Your task to perform on an android device: install app "Adobe Acrobat Reader" Image 0: 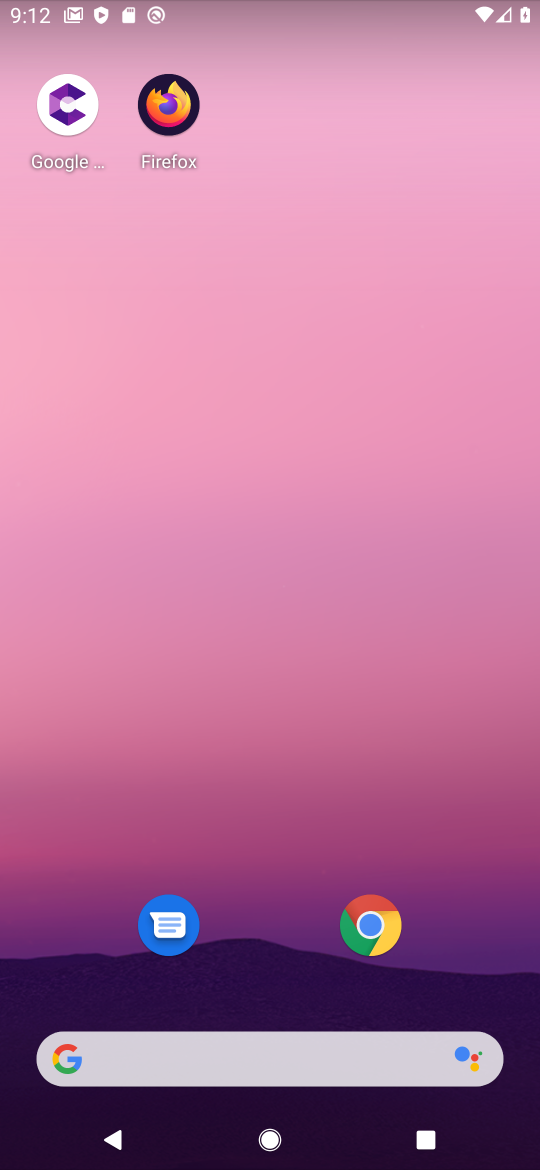
Step 0: drag from (318, 486) to (376, 83)
Your task to perform on an android device: install app "Adobe Acrobat Reader" Image 1: 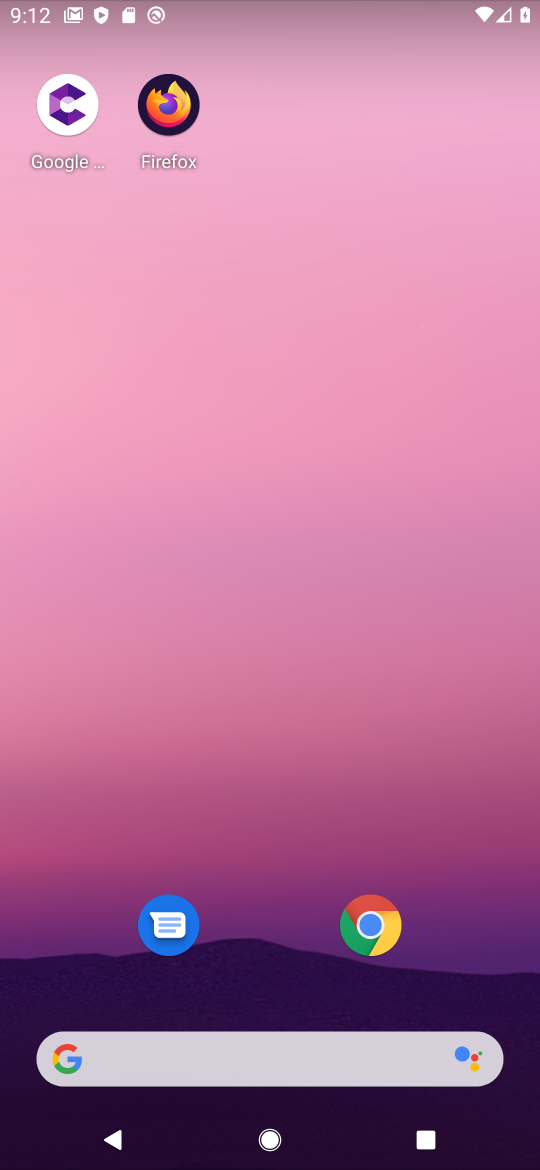
Step 1: drag from (303, 906) to (422, 37)
Your task to perform on an android device: install app "Adobe Acrobat Reader" Image 2: 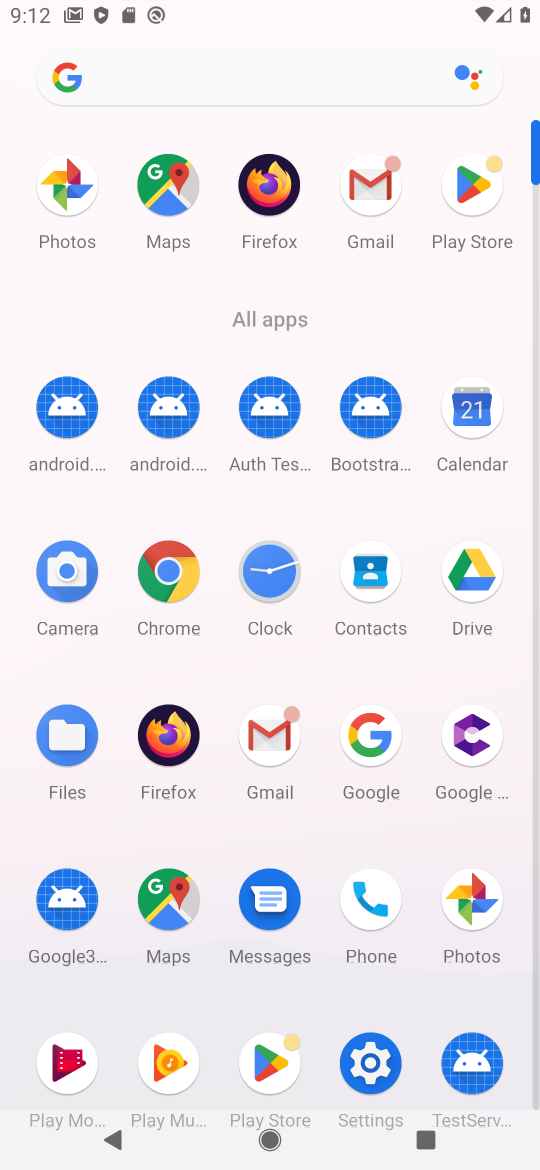
Step 2: click (460, 170)
Your task to perform on an android device: install app "Adobe Acrobat Reader" Image 3: 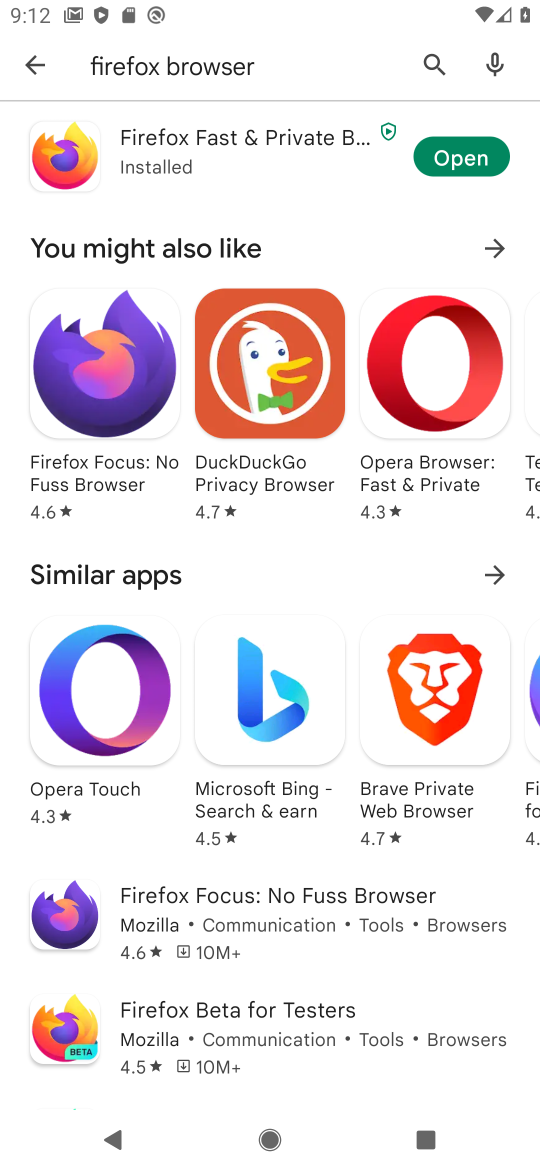
Step 3: click (444, 88)
Your task to perform on an android device: install app "Adobe Acrobat Reader" Image 4: 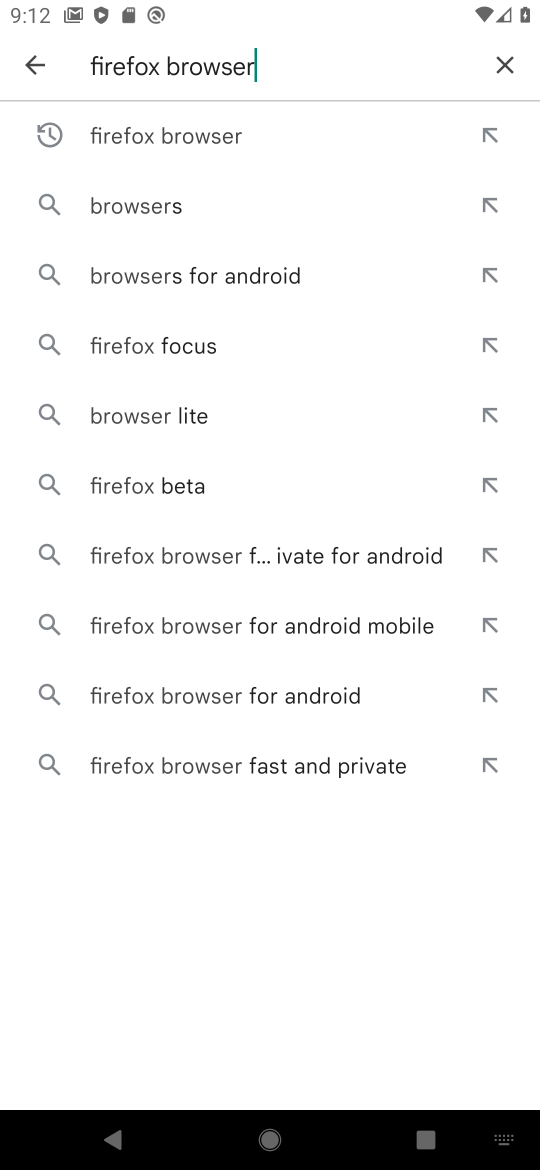
Step 4: click (503, 47)
Your task to perform on an android device: install app "Adobe Acrobat Reader" Image 5: 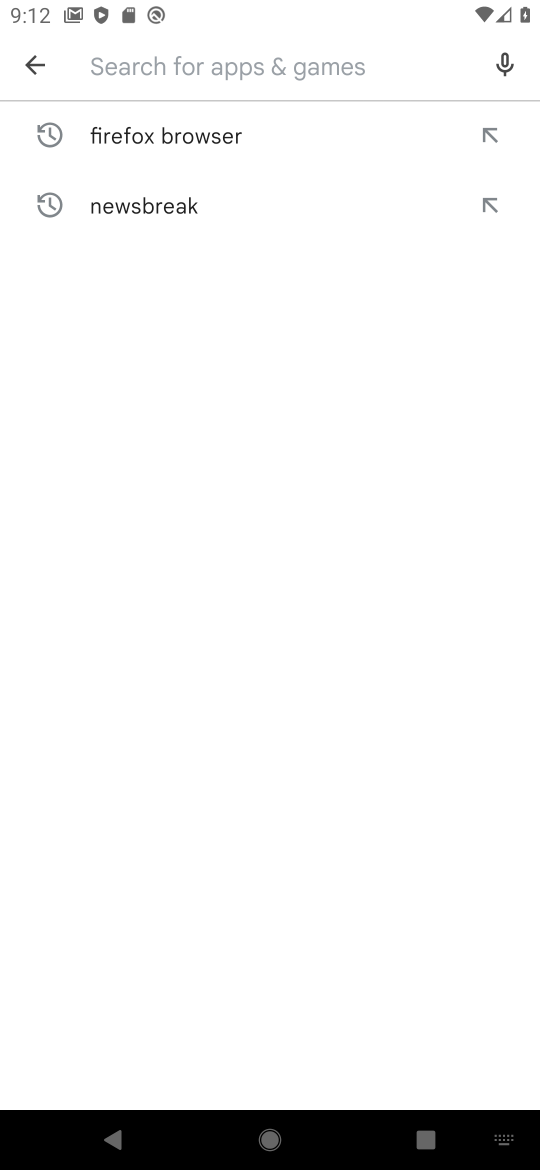
Step 5: click (141, 63)
Your task to perform on an android device: install app "Adobe Acrobat Reader" Image 6: 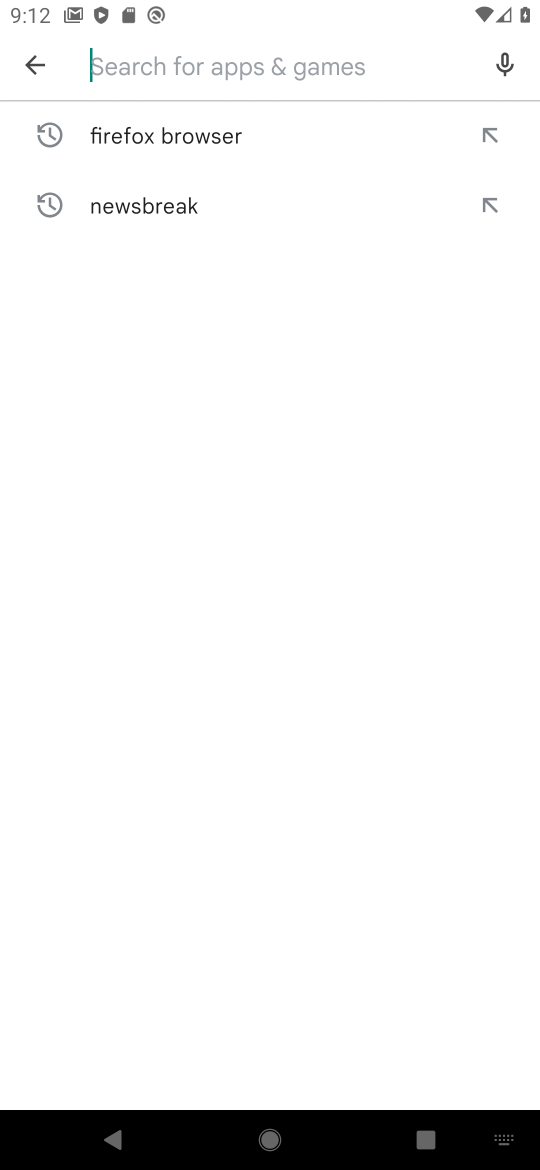
Step 6: type "Adobe Acrobat Reader"
Your task to perform on an android device: install app "Adobe Acrobat Reader" Image 7: 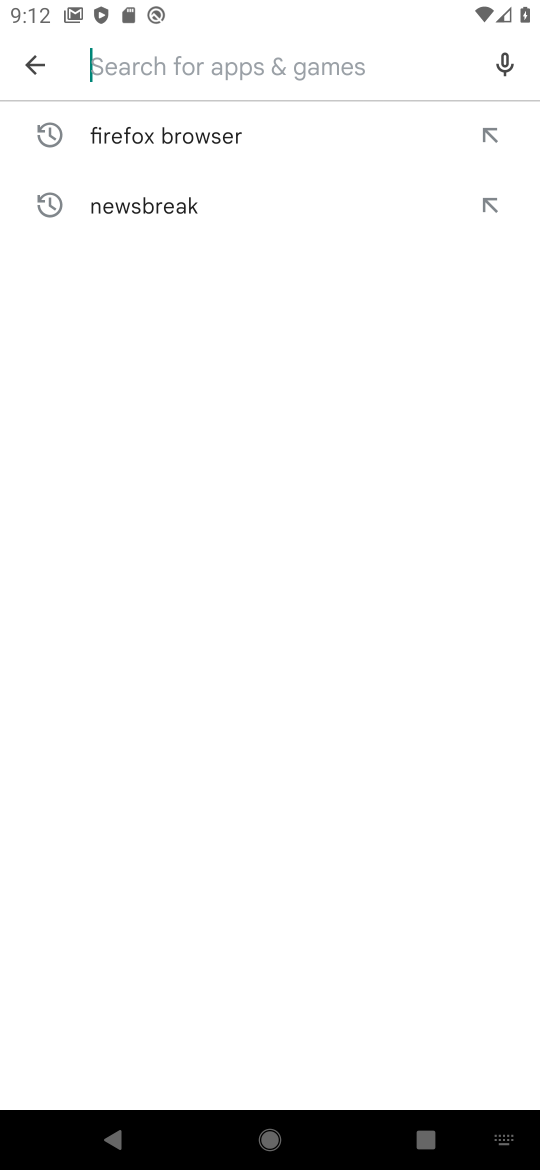
Step 7: click (368, 825)
Your task to perform on an android device: install app "Adobe Acrobat Reader" Image 8: 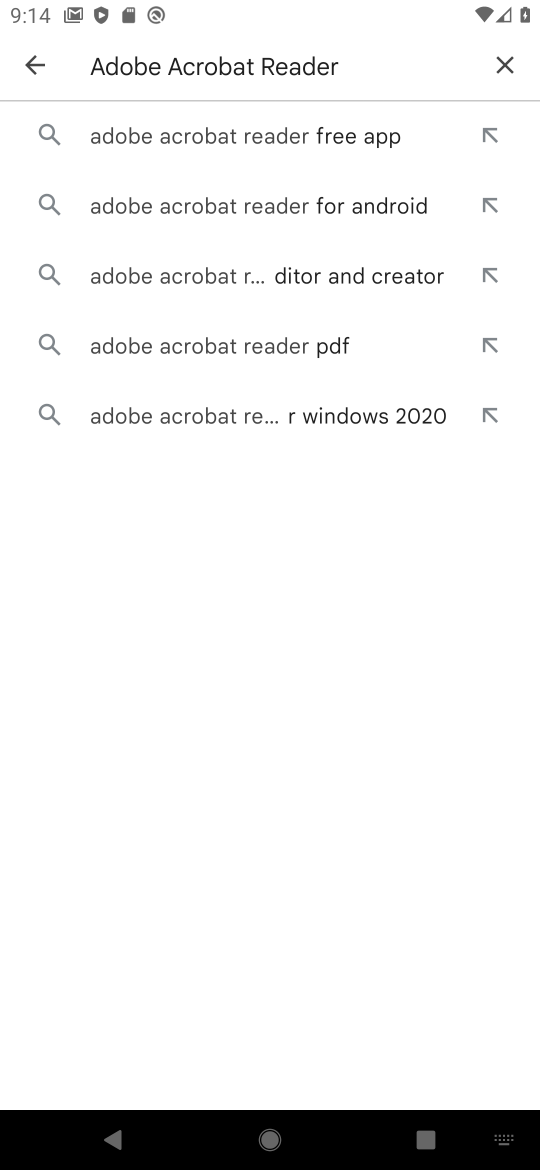
Step 8: click (225, 217)
Your task to perform on an android device: install app "Adobe Acrobat Reader" Image 9: 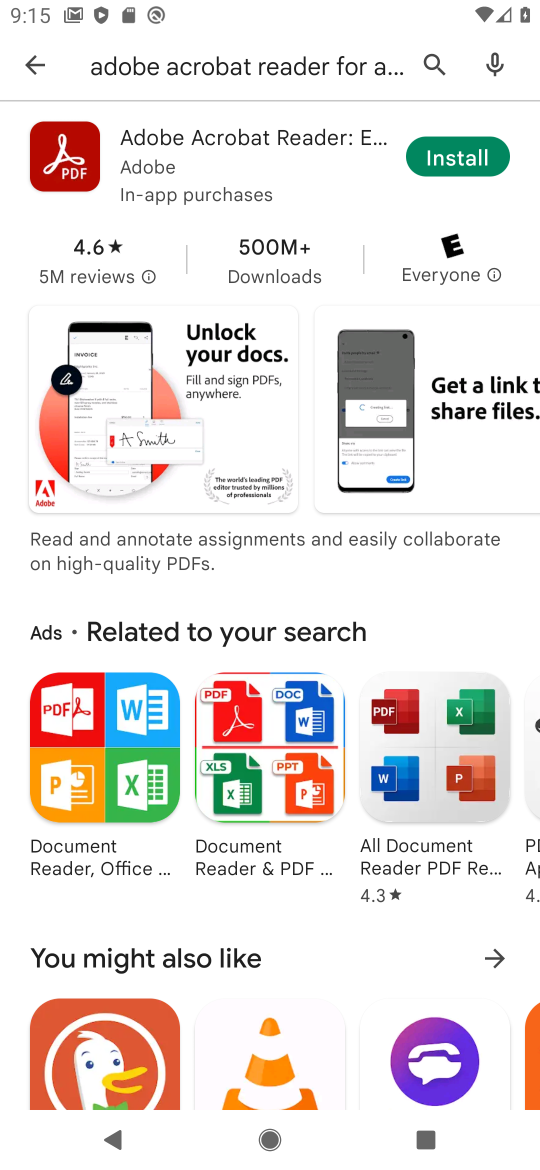
Step 9: click (442, 161)
Your task to perform on an android device: install app "Adobe Acrobat Reader" Image 10: 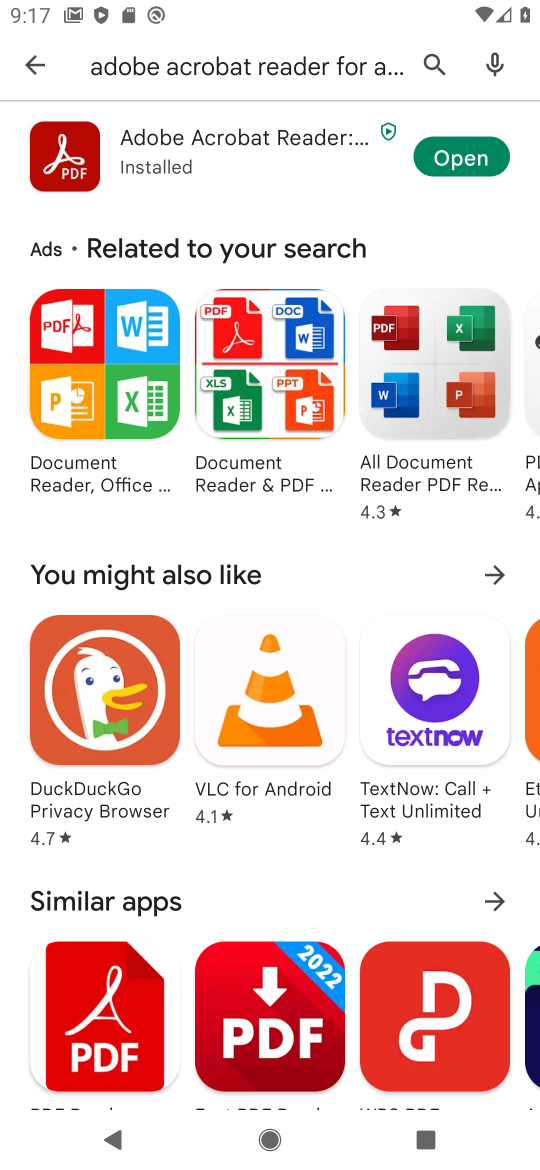
Step 10: click (438, 155)
Your task to perform on an android device: install app "Adobe Acrobat Reader" Image 11: 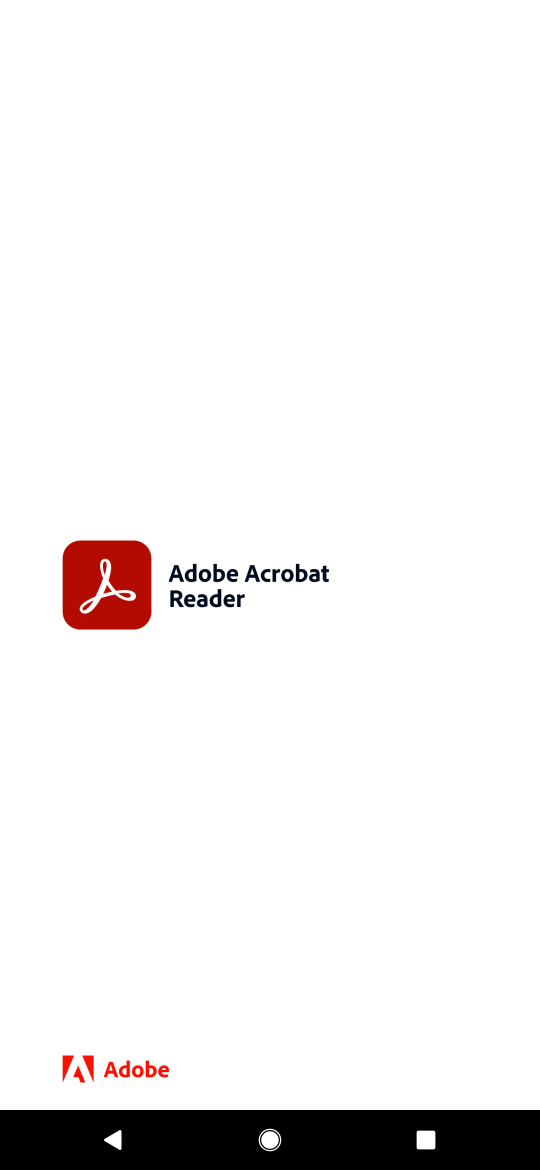
Step 11: task complete